Your task to perform on an android device: allow notifications from all sites in the chrome app Image 0: 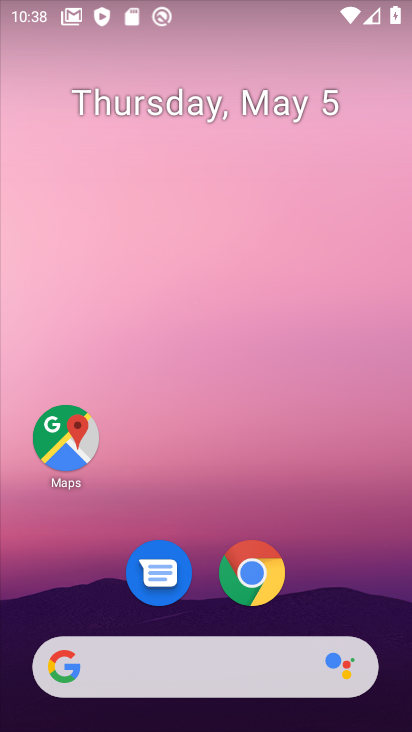
Step 0: click (252, 571)
Your task to perform on an android device: allow notifications from all sites in the chrome app Image 1: 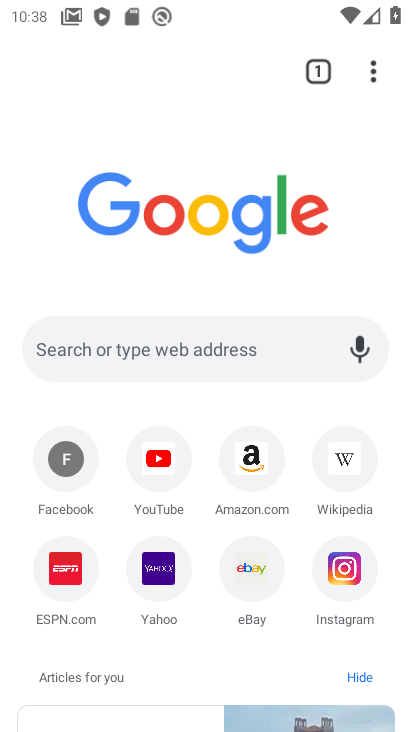
Step 1: click (374, 62)
Your task to perform on an android device: allow notifications from all sites in the chrome app Image 2: 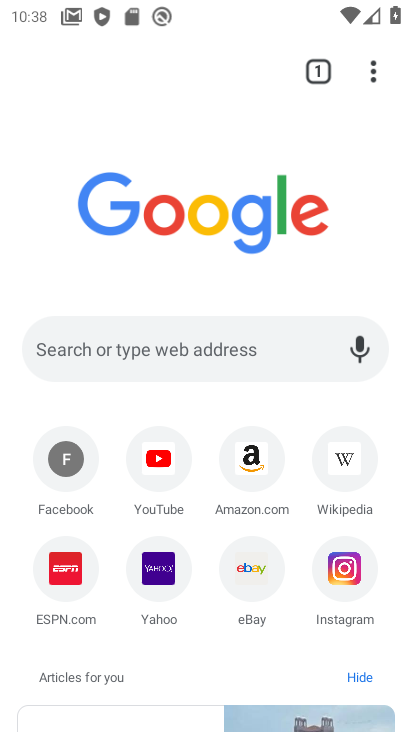
Step 2: click (370, 77)
Your task to perform on an android device: allow notifications from all sites in the chrome app Image 3: 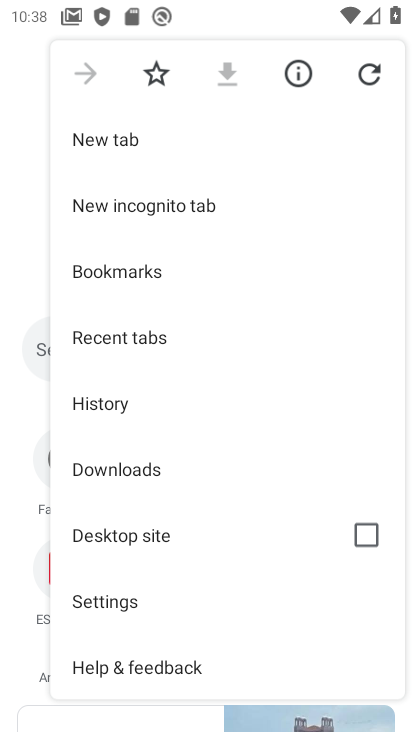
Step 3: click (120, 591)
Your task to perform on an android device: allow notifications from all sites in the chrome app Image 4: 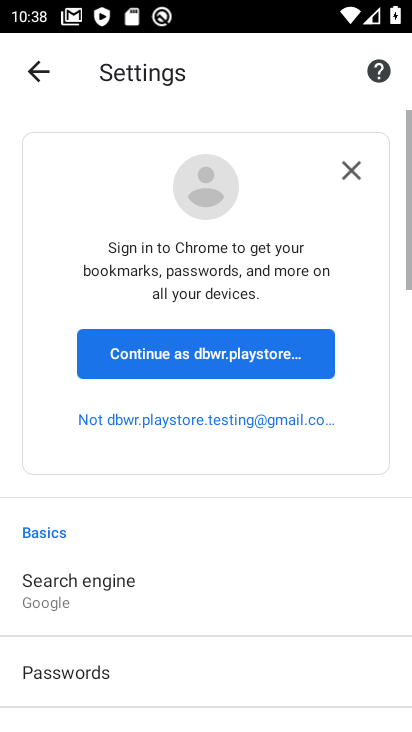
Step 4: drag from (142, 685) to (277, 198)
Your task to perform on an android device: allow notifications from all sites in the chrome app Image 5: 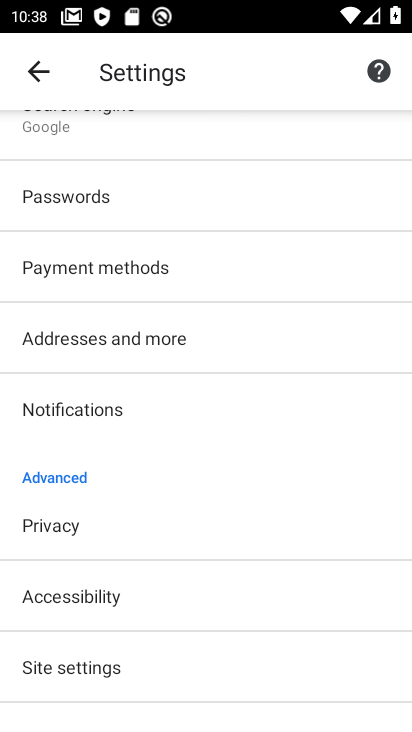
Step 5: drag from (155, 693) to (252, 259)
Your task to perform on an android device: allow notifications from all sites in the chrome app Image 6: 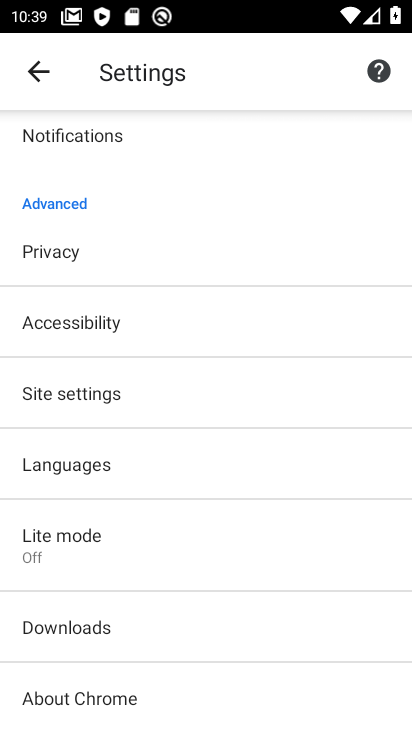
Step 6: click (139, 385)
Your task to perform on an android device: allow notifications from all sites in the chrome app Image 7: 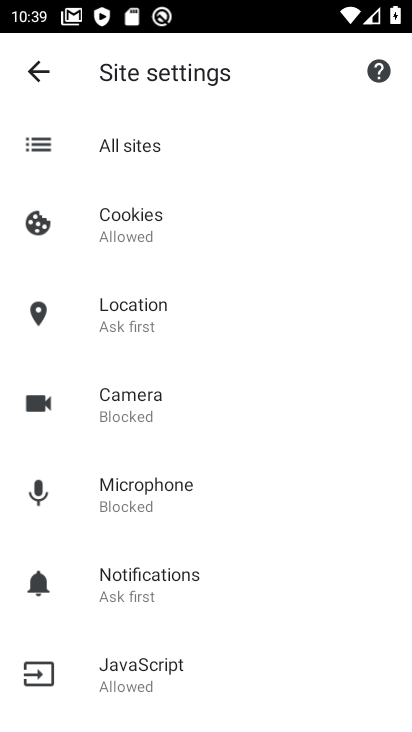
Step 7: click (175, 163)
Your task to perform on an android device: allow notifications from all sites in the chrome app Image 8: 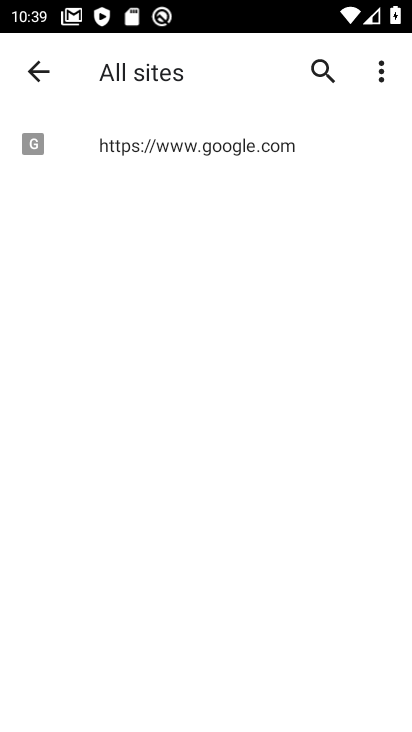
Step 8: click (380, 70)
Your task to perform on an android device: allow notifications from all sites in the chrome app Image 9: 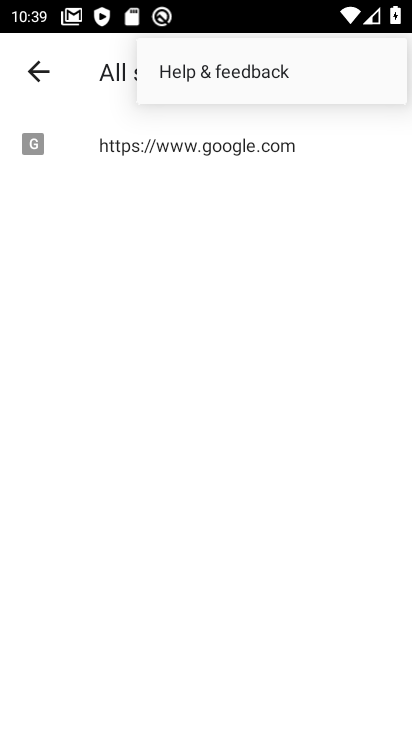
Step 9: task complete